Your task to perform on an android device: toggle notifications settings in the gmail app Image 0: 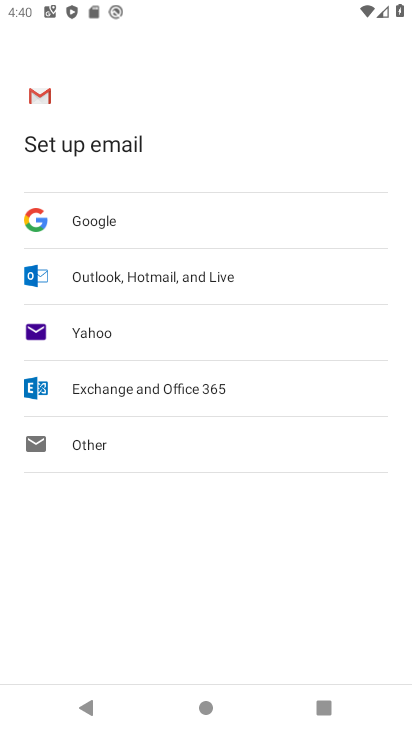
Step 0: press back button
Your task to perform on an android device: toggle notifications settings in the gmail app Image 1: 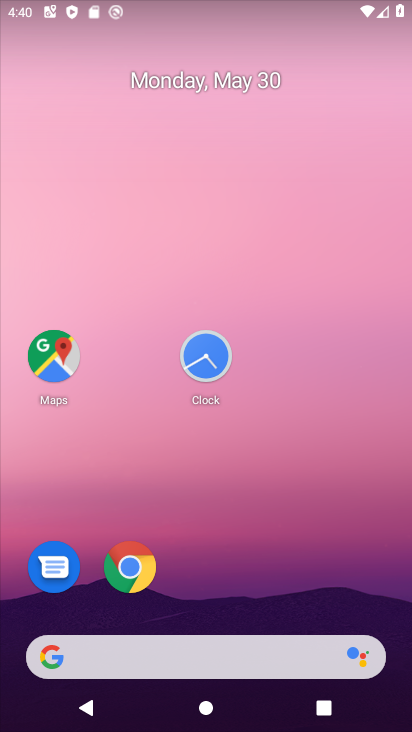
Step 1: drag from (255, 665) to (145, 78)
Your task to perform on an android device: toggle notifications settings in the gmail app Image 2: 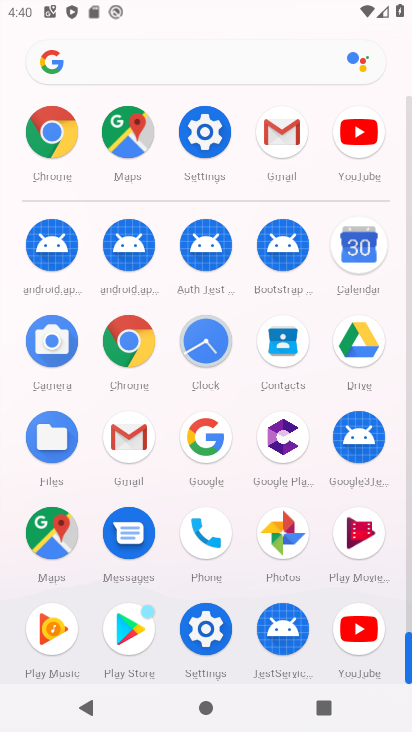
Step 2: click (124, 435)
Your task to perform on an android device: toggle notifications settings in the gmail app Image 3: 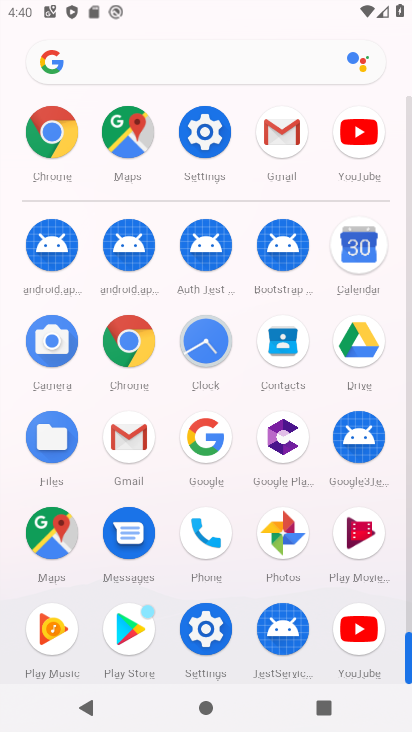
Step 3: click (124, 436)
Your task to perform on an android device: toggle notifications settings in the gmail app Image 4: 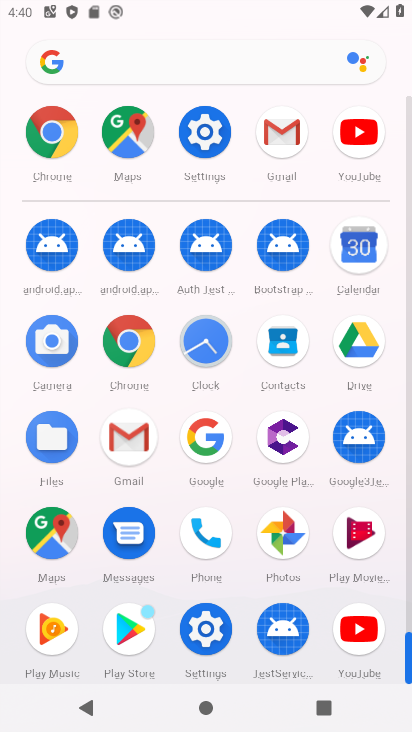
Step 4: click (124, 437)
Your task to perform on an android device: toggle notifications settings in the gmail app Image 5: 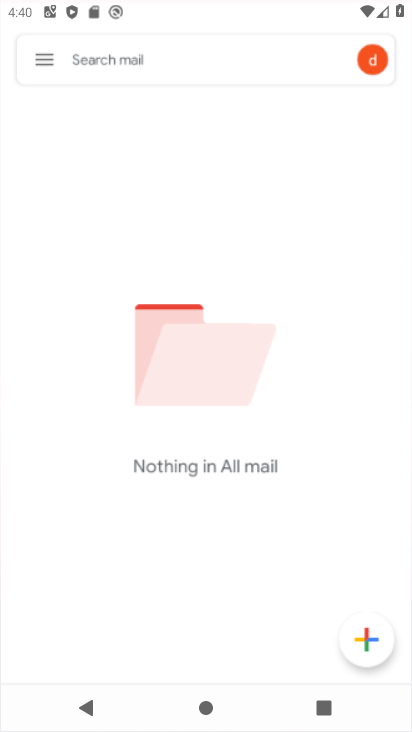
Step 5: click (131, 440)
Your task to perform on an android device: toggle notifications settings in the gmail app Image 6: 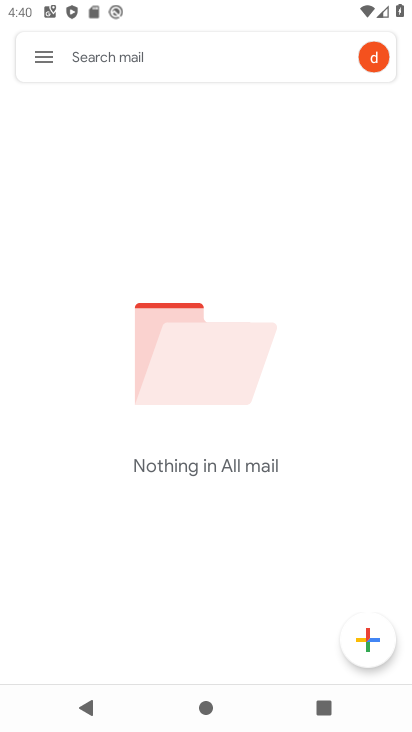
Step 6: click (130, 441)
Your task to perform on an android device: toggle notifications settings in the gmail app Image 7: 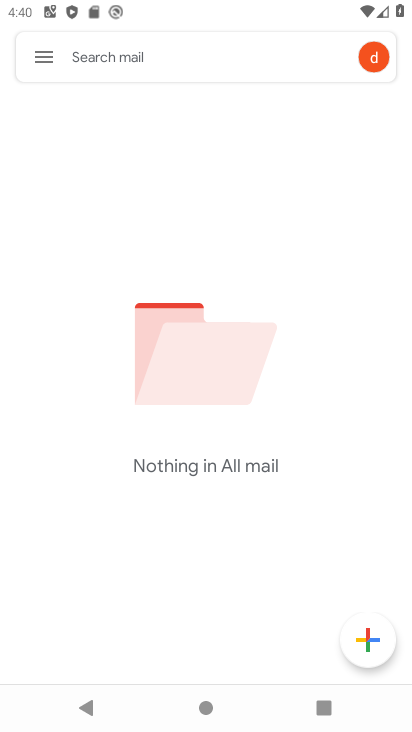
Step 7: press back button
Your task to perform on an android device: toggle notifications settings in the gmail app Image 8: 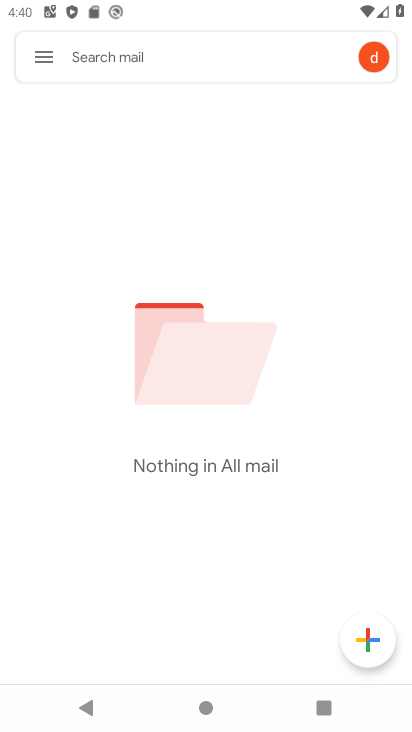
Step 8: press back button
Your task to perform on an android device: toggle notifications settings in the gmail app Image 9: 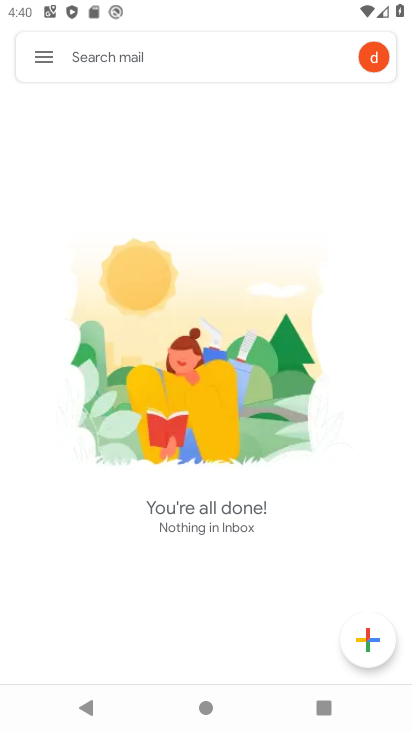
Step 9: press back button
Your task to perform on an android device: toggle notifications settings in the gmail app Image 10: 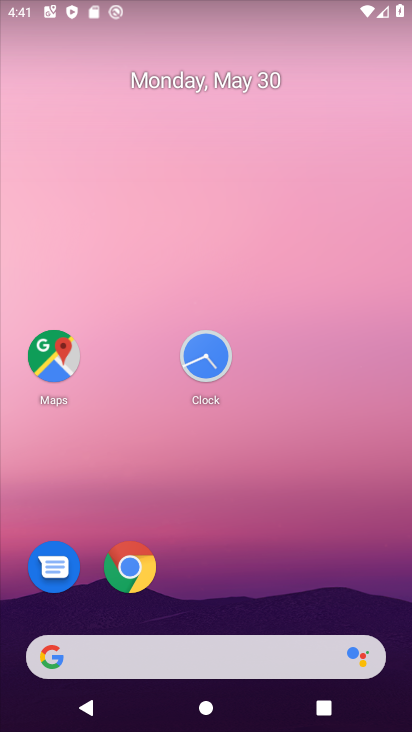
Step 10: drag from (258, 523) to (201, 23)
Your task to perform on an android device: toggle notifications settings in the gmail app Image 11: 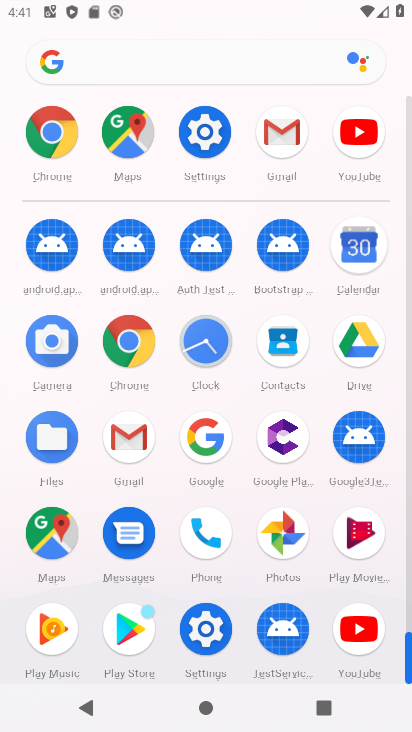
Step 11: click (207, 621)
Your task to perform on an android device: toggle notifications settings in the gmail app Image 12: 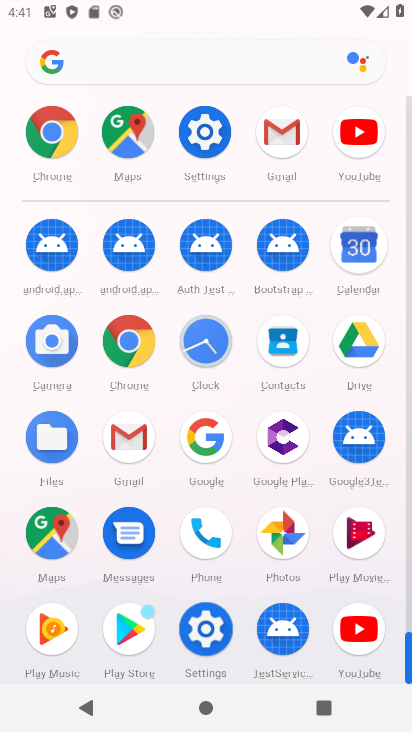
Step 12: click (207, 621)
Your task to perform on an android device: toggle notifications settings in the gmail app Image 13: 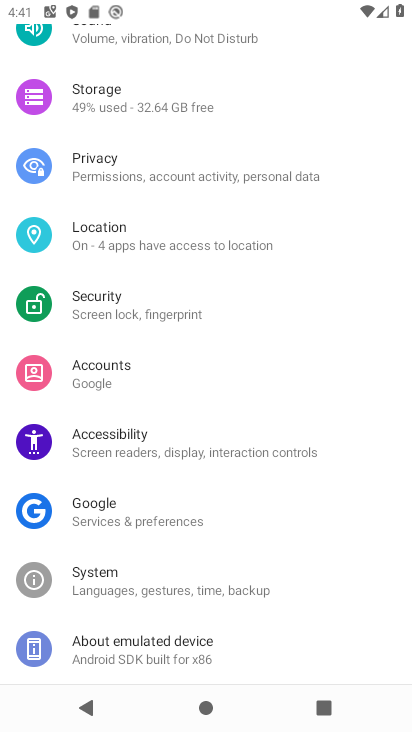
Step 13: click (207, 624)
Your task to perform on an android device: toggle notifications settings in the gmail app Image 14: 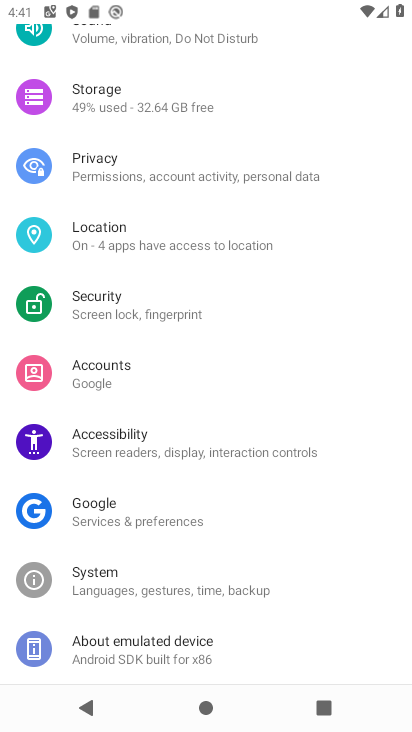
Step 14: click (207, 625)
Your task to perform on an android device: toggle notifications settings in the gmail app Image 15: 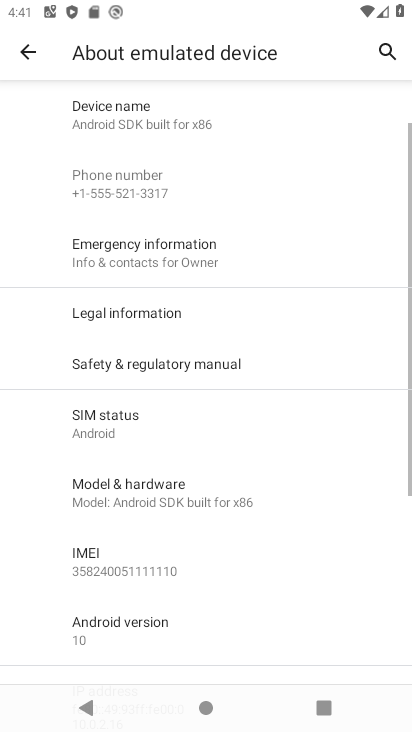
Step 15: drag from (130, 416) to (107, 168)
Your task to perform on an android device: toggle notifications settings in the gmail app Image 16: 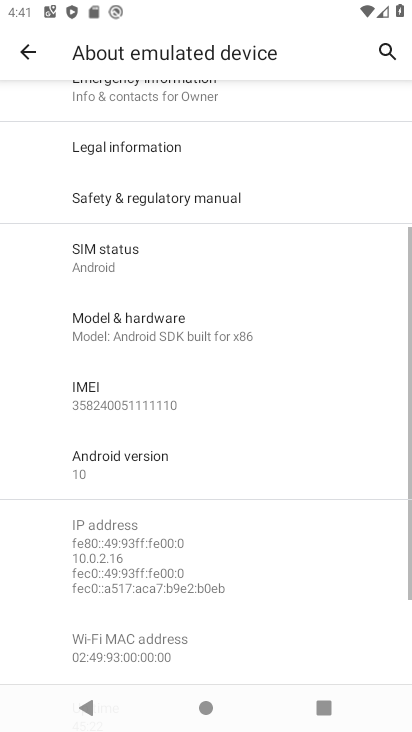
Step 16: drag from (137, 472) to (133, 143)
Your task to perform on an android device: toggle notifications settings in the gmail app Image 17: 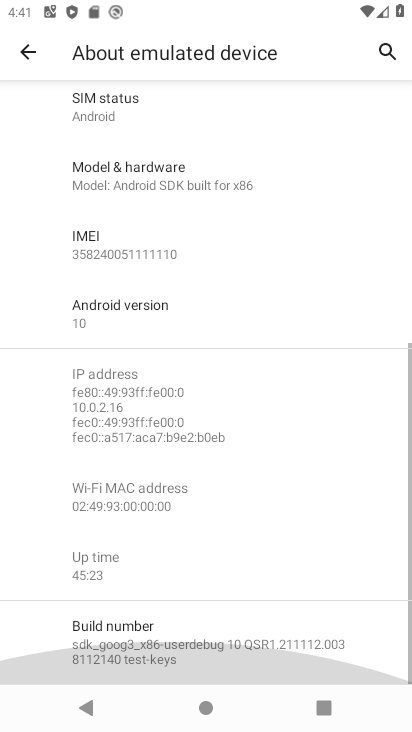
Step 17: drag from (144, 483) to (123, 109)
Your task to perform on an android device: toggle notifications settings in the gmail app Image 18: 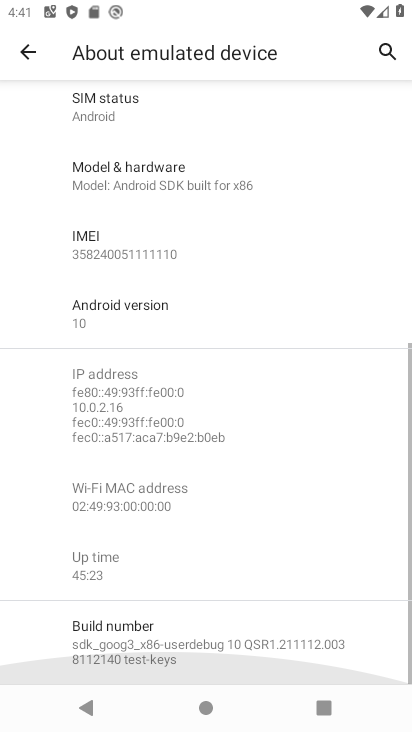
Step 18: drag from (153, 513) to (154, 184)
Your task to perform on an android device: toggle notifications settings in the gmail app Image 19: 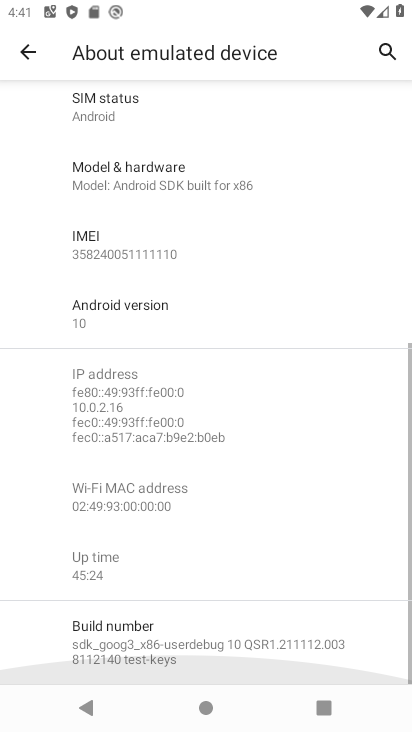
Step 19: drag from (179, 553) to (165, 290)
Your task to perform on an android device: toggle notifications settings in the gmail app Image 20: 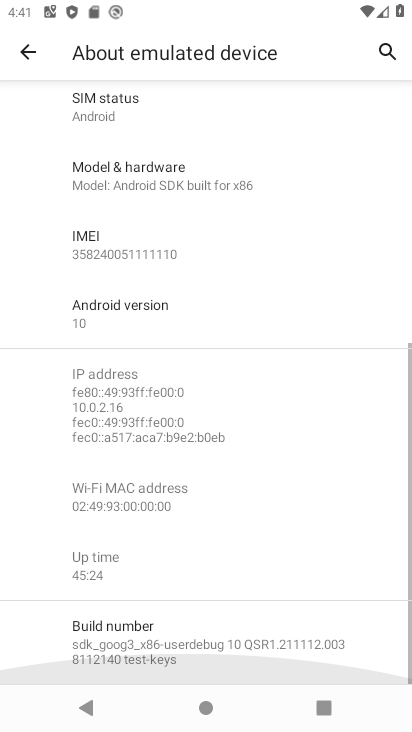
Step 20: drag from (110, 550) to (89, 199)
Your task to perform on an android device: toggle notifications settings in the gmail app Image 21: 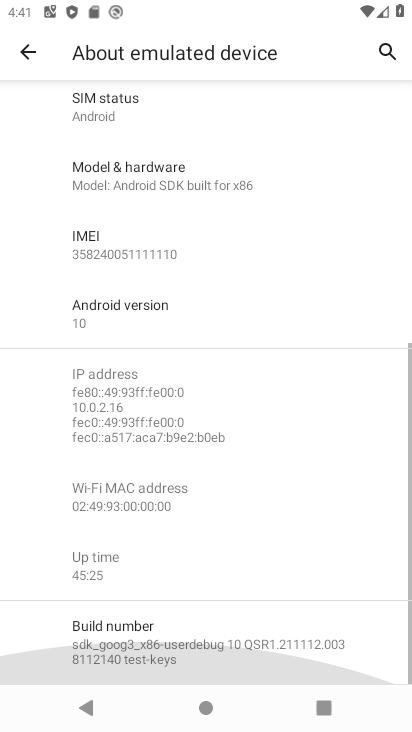
Step 21: drag from (89, 585) to (89, 152)
Your task to perform on an android device: toggle notifications settings in the gmail app Image 22: 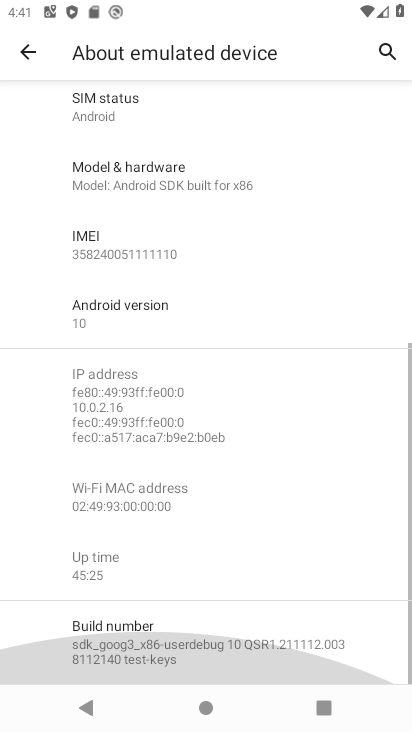
Step 22: drag from (144, 515) to (151, 93)
Your task to perform on an android device: toggle notifications settings in the gmail app Image 23: 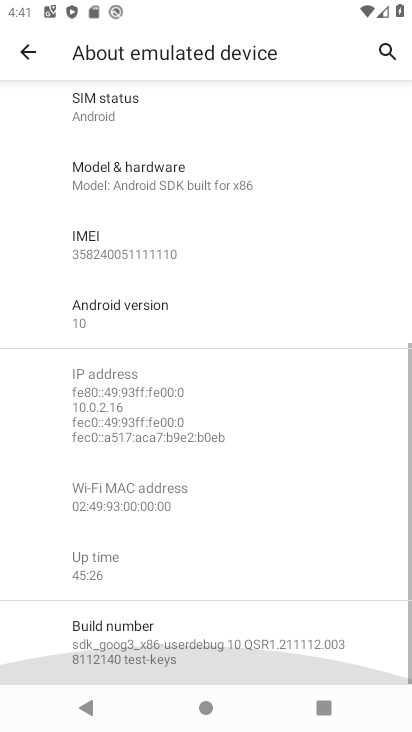
Step 23: drag from (193, 423) to (197, 137)
Your task to perform on an android device: toggle notifications settings in the gmail app Image 24: 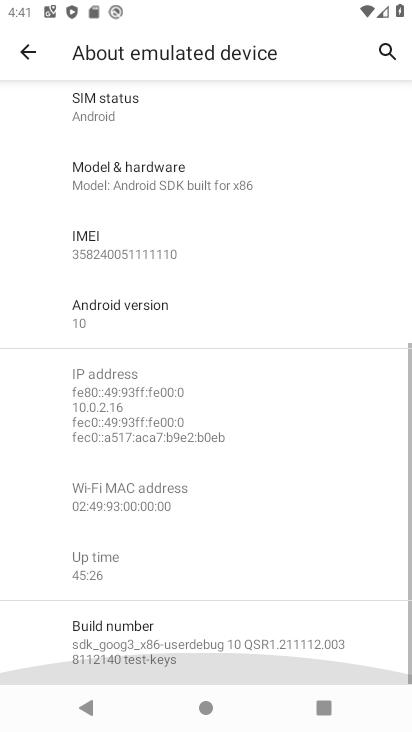
Step 24: drag from (210, 577) to (143, 133)
Your task to perform on an android device: toggle notifications settings in the gmail app Image 25: 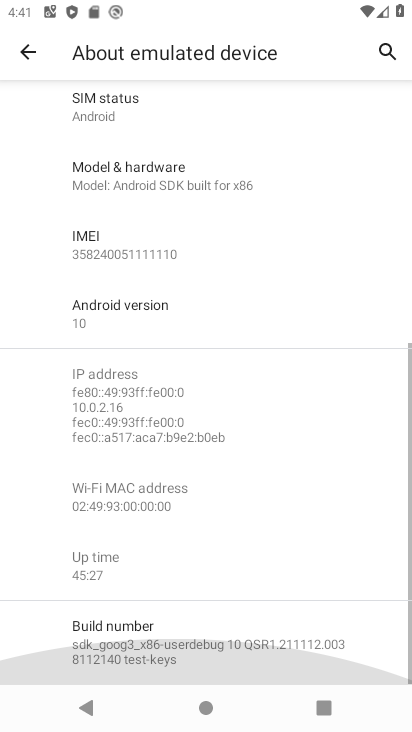
Step 25: drag from (136, 481) to (123, 46)
Your task to perform on an android device: toggle notifications settings in the gmail app Image 26: 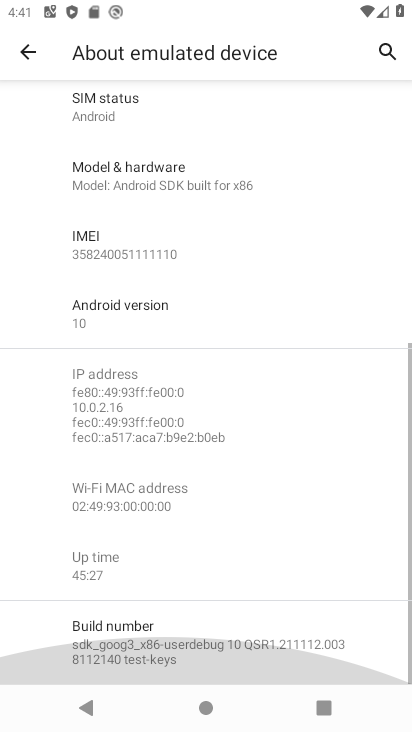
Step 26: drag from (150, 447) to (123, 117)
Your task to perform on an android device: toggle notifications settings in the gmail app Image 27: 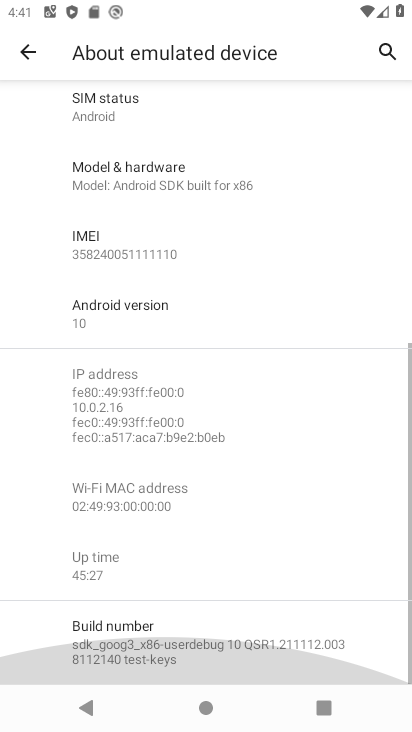
Step 27: drag from (146, 301) to (127, 8)
Your task to perform on an android device: toggle notifications settings in the gmail app Image 28: 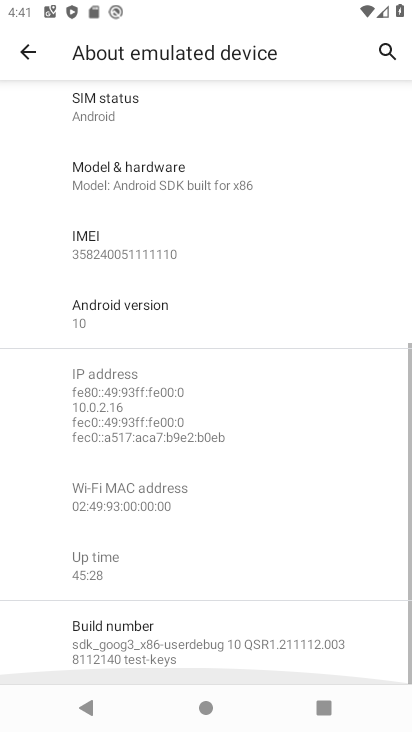
Step 28: drag from (149, 315) to (126, 106)
Your task to perform on an android device: toggle notifications settings in the gmail app Image 29: 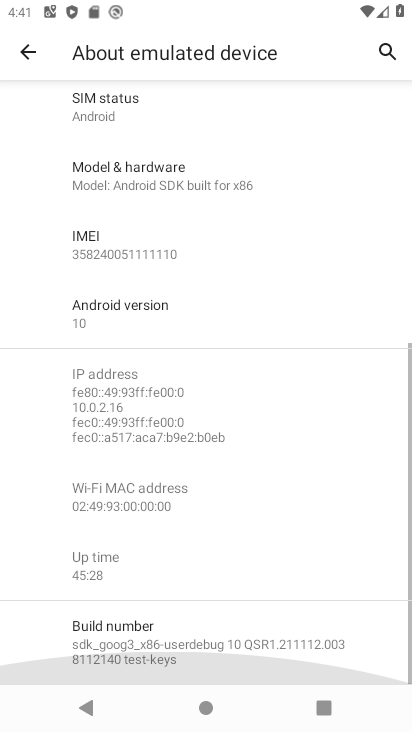
Step 29: drag from (171, 455) to (158, 190)
Your task to perform on an android device: toggle notifications settings in the gmail app Image 30: 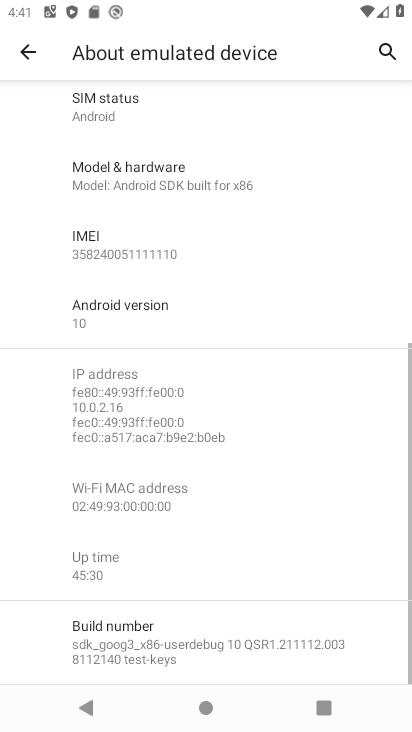
Step 30: click (24, 44)
Your task to perform on an android device: toggle notifications settings in the gmail app Image 31: 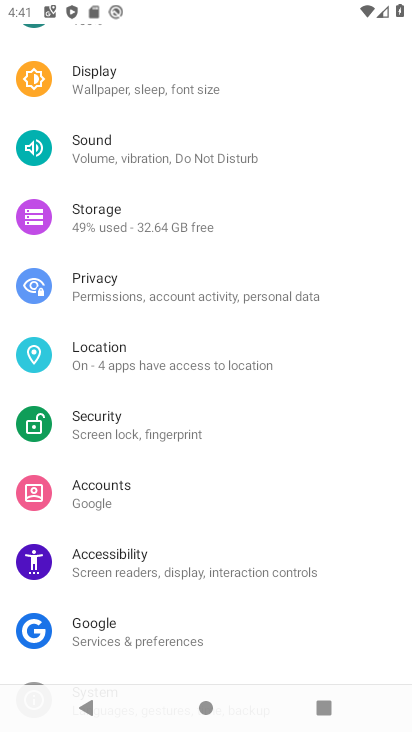
Step 31: drag from (156, 243) to (201, 552)
Your task to perform on an android device: toggle notifications settings in the gmail app Image 32: 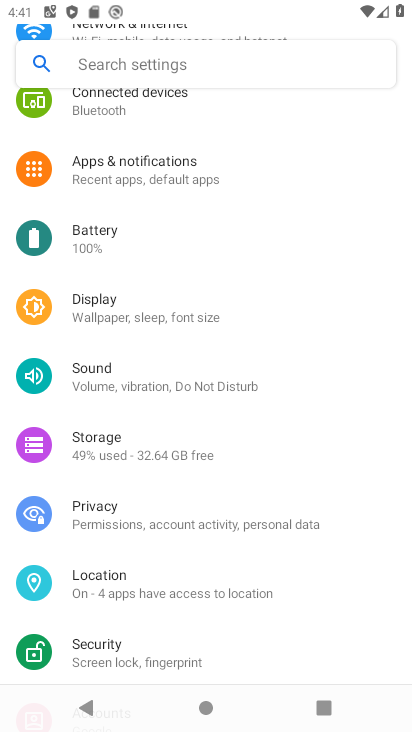
Step 32: drag from (138, 228) to (177, 512)
Your task to perform on an android device: toggle notifications settings in the gmail app Image 33: 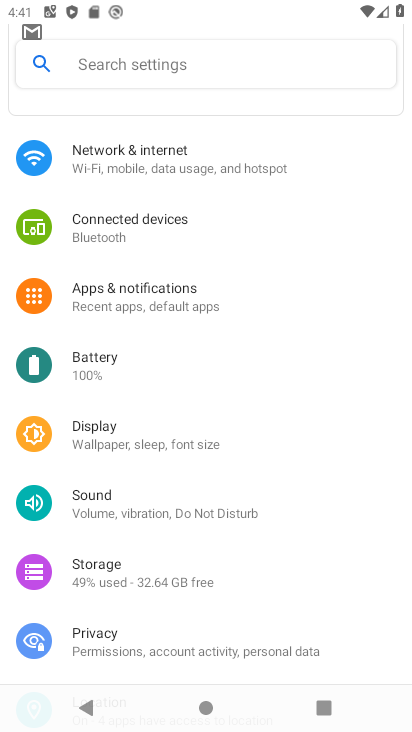
Step 33: drag from (175, 185) to (177, 508)
Your task to perform on an android device: toggle notifications settings in the gmail app Image 34: 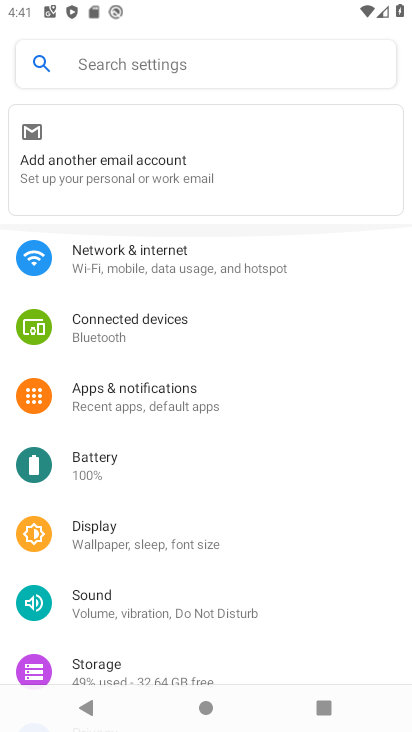
Step 34: drag from (172, 260) to (165, 614)
Your task to perform on an android device: toggle notifications settings in the gmail app Image 35: 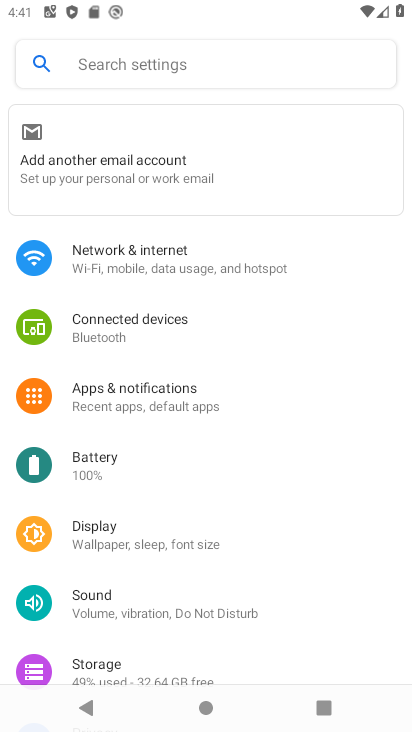
Step 35: click (132, 406)
Your task to perform on an android device: toggle notifications settings in the gmail app Image 36: 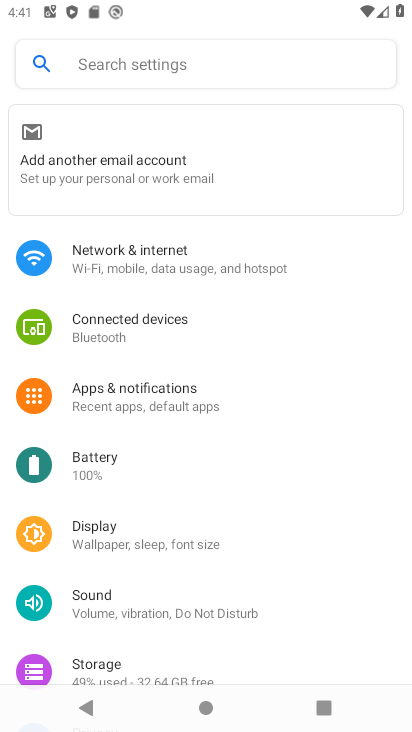
Step 36: click (132, 406)
Your task to perform on an android device: toggle notifications settings in the gmail app Image 37: 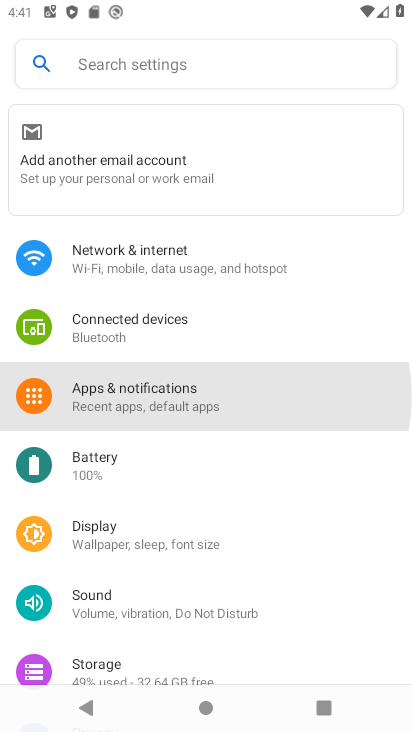
Step 37: click (132, 406)
Your task to perform on an android device: toggle notifications settings in the gmail app Image 38: 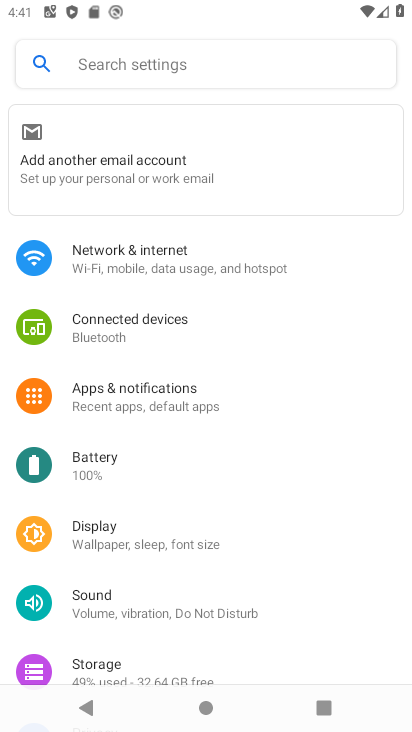
Step 38: click (132, 406)
Your task to perform on an android device: toggle notifications settings in the gmail app Image 39: 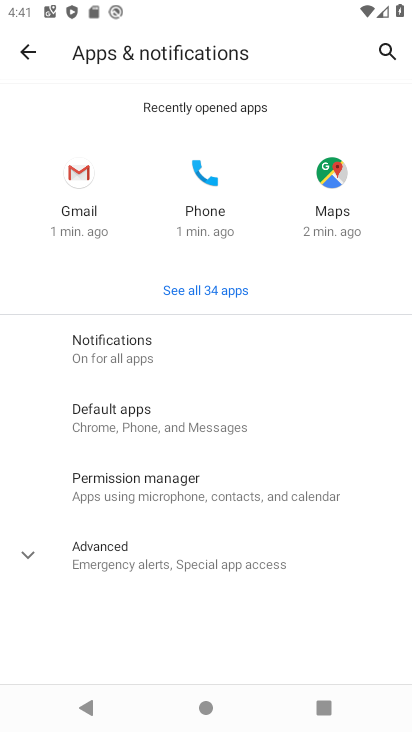
Step 39: click (113, 360)
Your task to perform on an android device: toggle notifications settings in the gmail app Image 40: 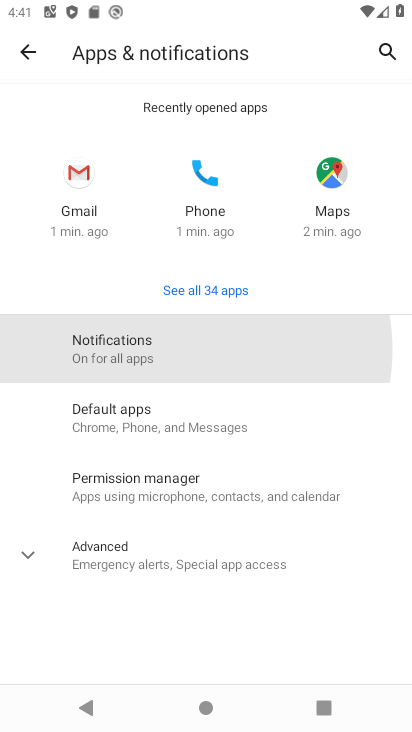
Step 40: click (114, 360)
Your task to perform on an android device: toggle notifications settings in the gmail app Image 41: 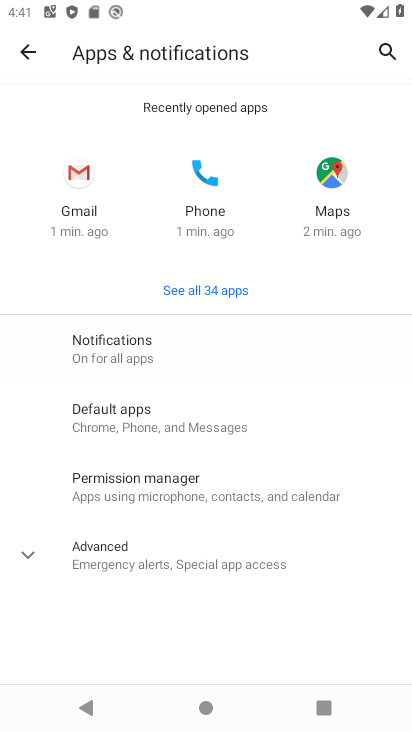
Step 41: click (114, 360)
Your task to perform on an android device: toggle notifications settings in the gmail app Image 42: 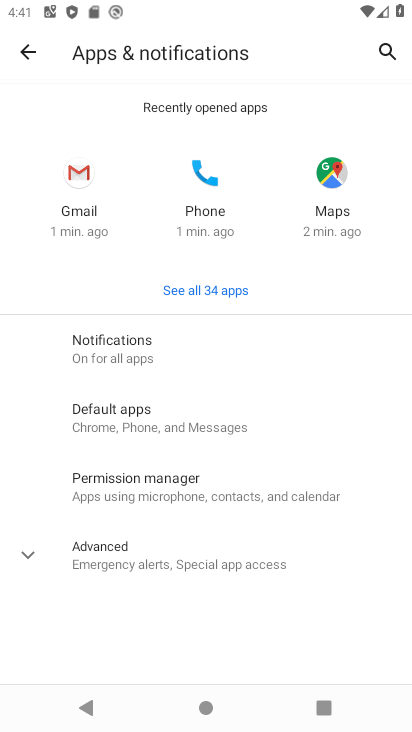
Step 42: click (112, 358)
Your task to perform on an android device: toggle notifications settings in the gmail app Image 43: 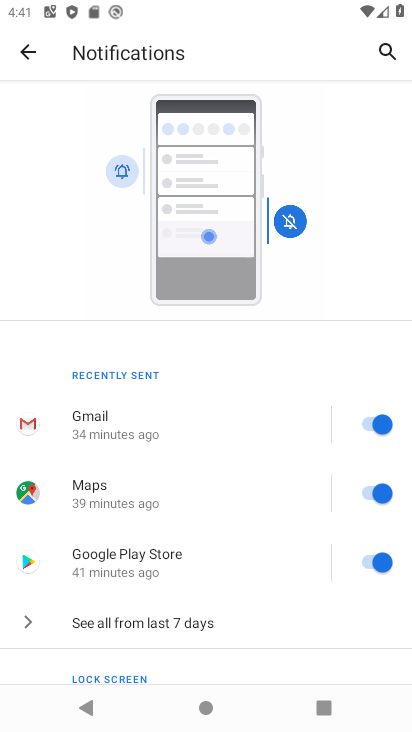
Step 43: drag from (155, 540) to (140, 279)
Your task to perform on an android device: toggle notifications settings in the gmail app Image 44: 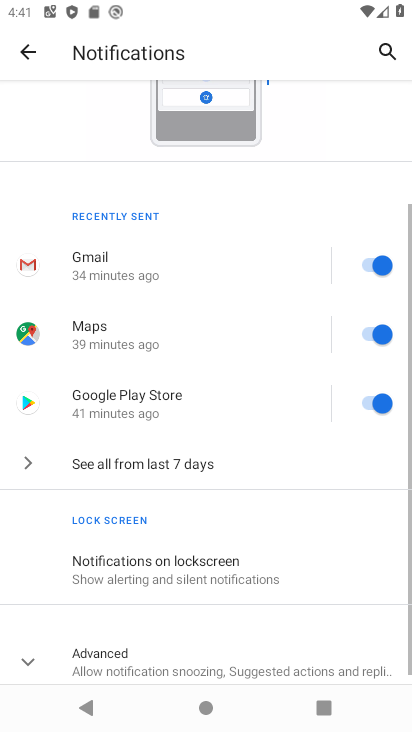
Step 44: drag from (167, 476) to (175, 274)
Your task to perform on an android device: toggle notifications settings in the gmail app Image 45: 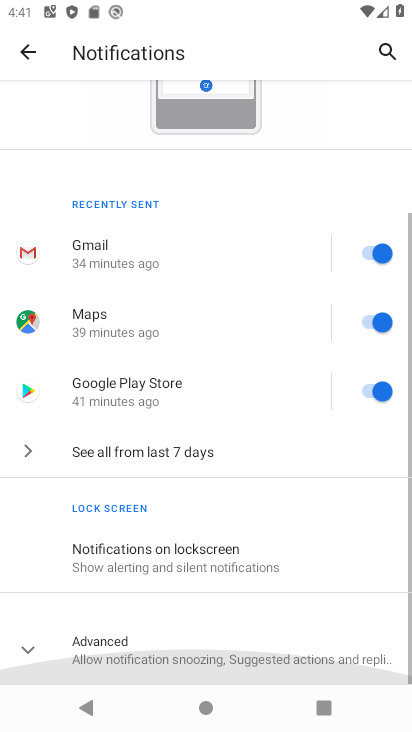
Step 45: drag from (184, 419) to (169, 192)
Your task to perform on an android device: toggle notifications settings in the gmail app Image 46: 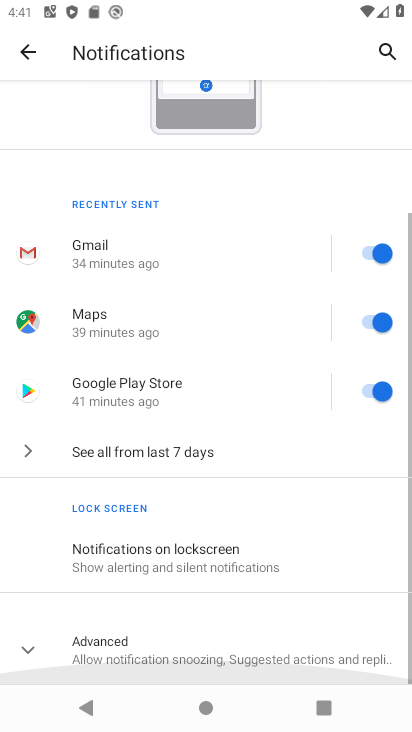
Step 46: drag from (176, 468) to (180, 183)
Your task to perform on an android device: toggle notifications settings in the gmail app Image 47: 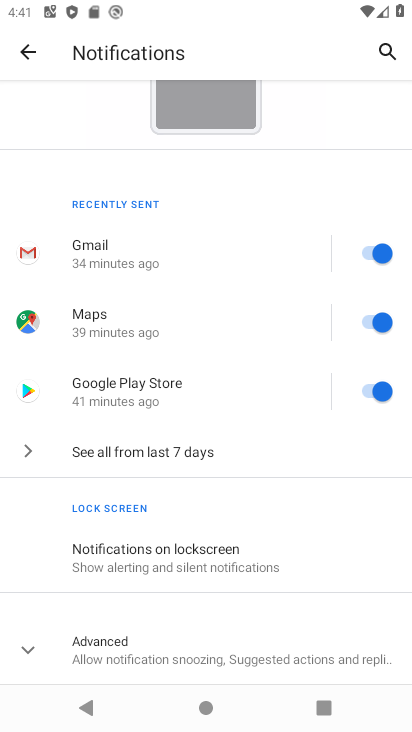
Step 47: click (114, 662)
Your task to perform on an android device: toggle notifications settings in the gmail app Image 48: 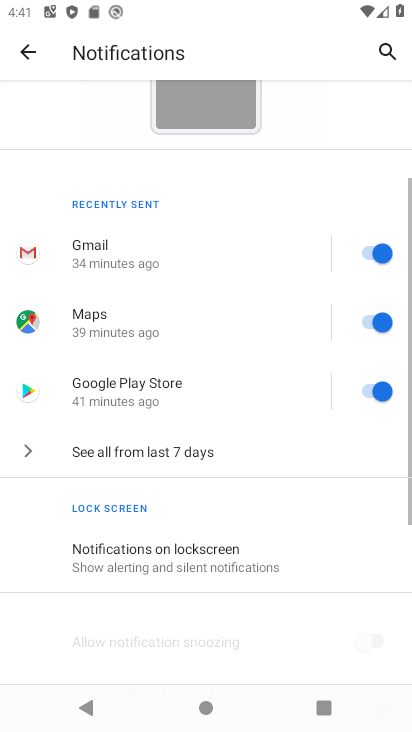
Step 48: click (114, 661)
Your task to perform on an android device: toggle notifications settings in the gmail app Image 49: 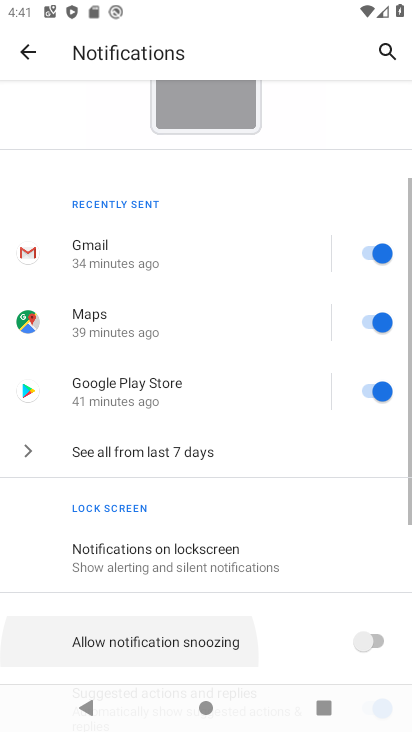
Step 49: click (115, 658)
Your task to perform on an android device: toggle notifications settings in the gmail app Image 50: 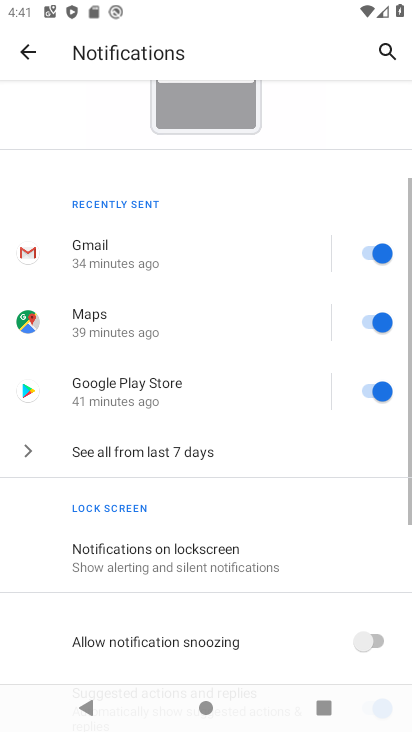
Step 50: drag from (234, 527) to (254, 143)
Your task to perform on an android device: toggle notifications settings in the gmail app Image 51: 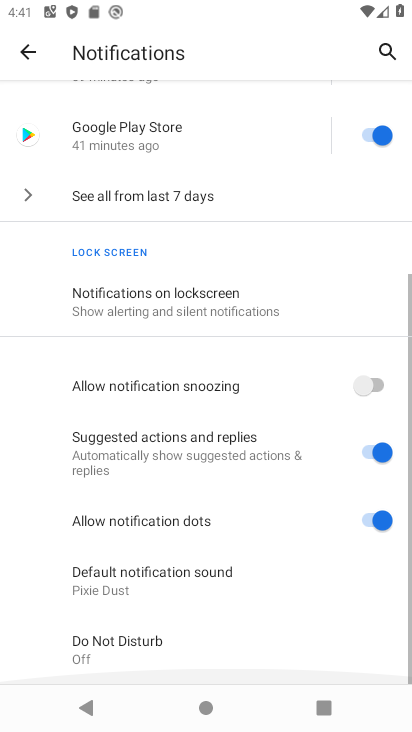
Step 51: drag from (216, 396) to (196, 68)
Your task to perform on an android device: toggle notifications settings in the gmail app Image 52: 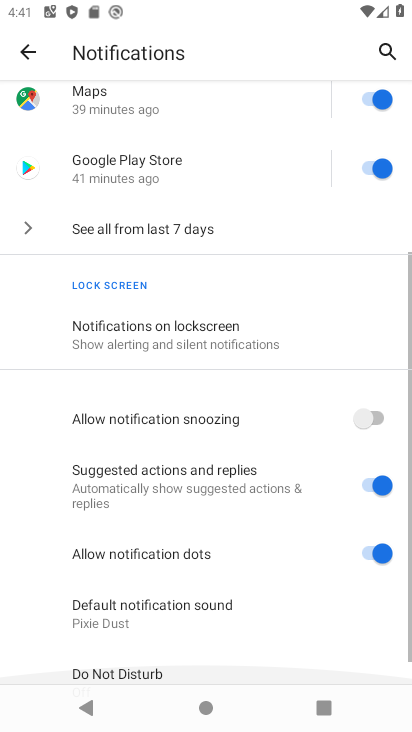
Step 52: drag from (175, 414) to (175, 138)
Your task to perform on an android device: toggle notifications settings in the gmail app Image 53: 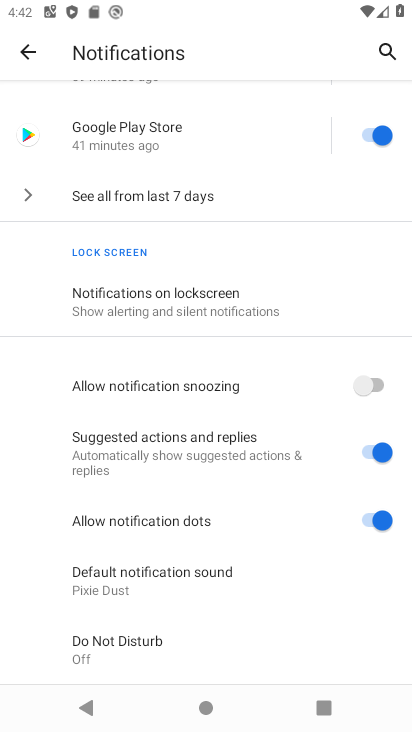
Step 53: click (376, 523)
Your task to perform on an android device: toggle notifications settings in the gmail app Image 54: 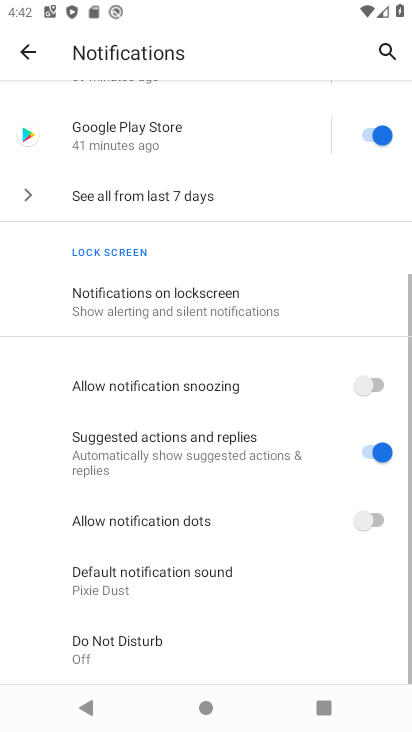
Step 54: click (365, 522)
Your task to perform on an android device: toggle notifications settings in the gmail app Image 55: 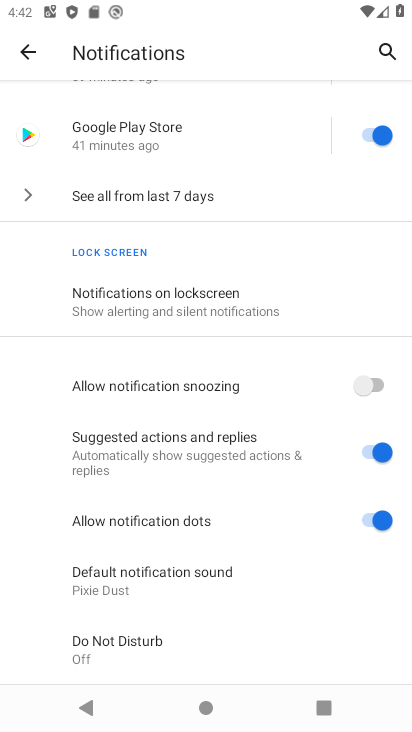
Step 55: task complete